Your task to perform on an android device: turn off javascript in the chrome app Image 0: 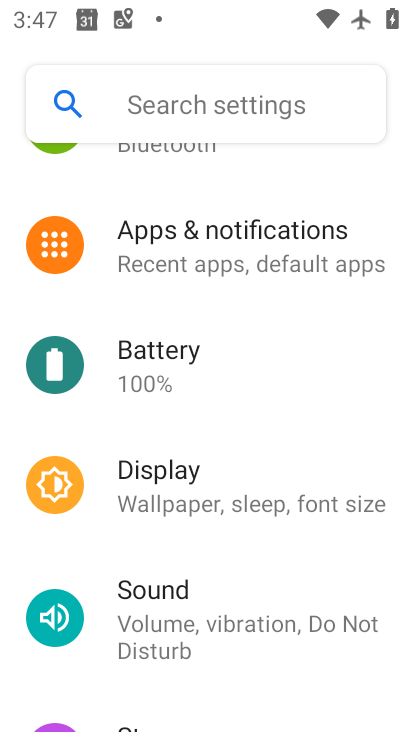
Step 0: press home button
Your task to perform on an android device: turn off javascript in the chrome app Image 1: 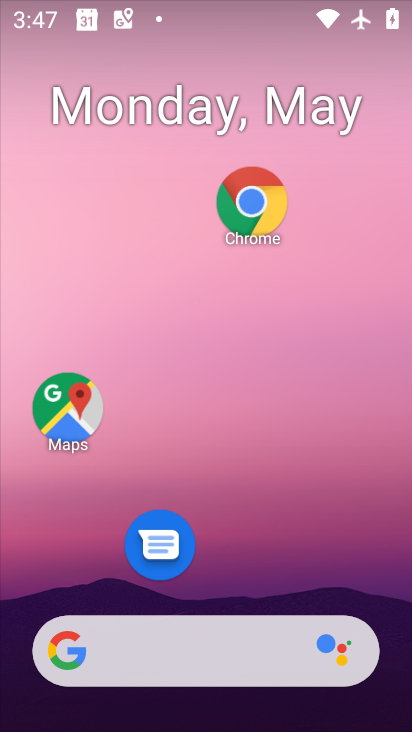
Step 1: click (261, 221)
Your task to perform on an android device: turn off javascript in the chrome app Image 2: 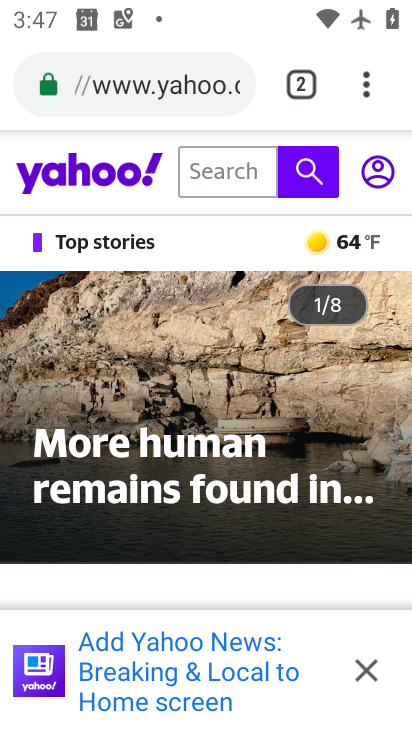
Step 2: drag from (360, 85) to (96, 591)
Your task to perform on an android device: turn off javascript in the chrome app Image 3: 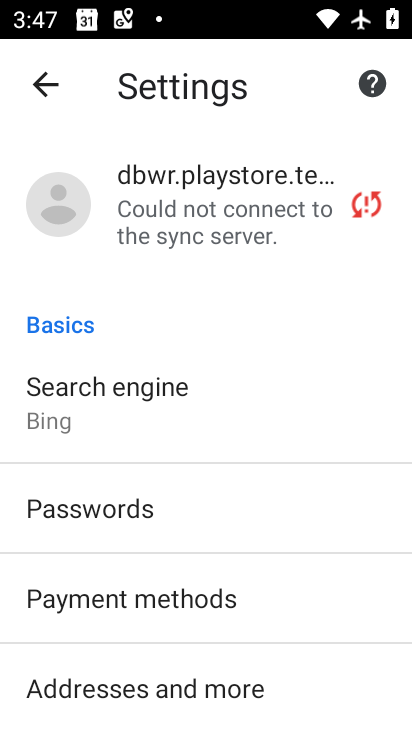
Step 3: drag from (161, 632) to (187, 331)
Your task to perform on an android device: turn off javascript in the chrome app Image 4: 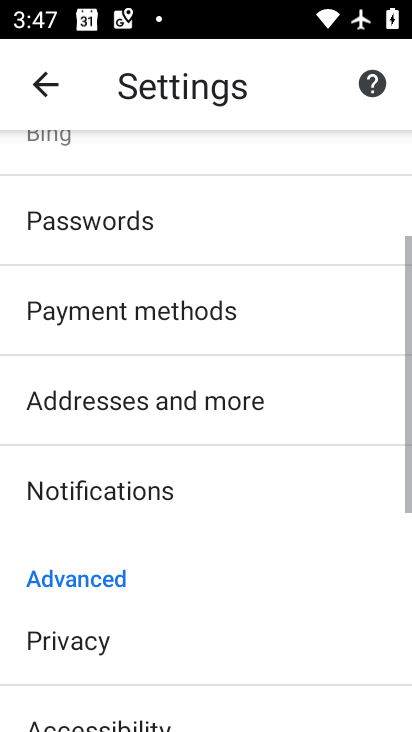
Step 4: drag from (222, 714) to (206, 435)
Your task to perform on an android device: turn off javascript in the chrome app Image 5: 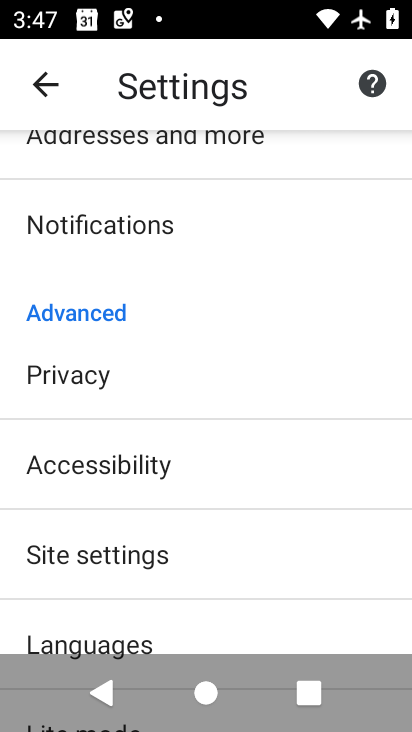
Step 5: drag from (158, 549) to (168, 390)
Your task to perform on an android device: turn off javascript in the chrome app Image 6: 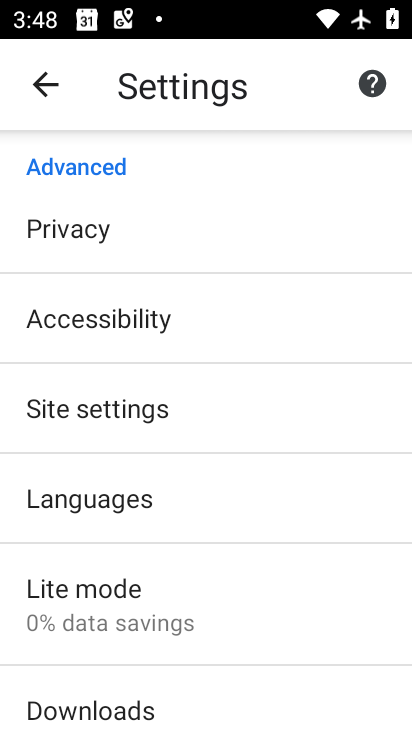
Step 6: click (105, 405)
Your task to perform on an android device: turn off javascript in the chrome app Image 7: 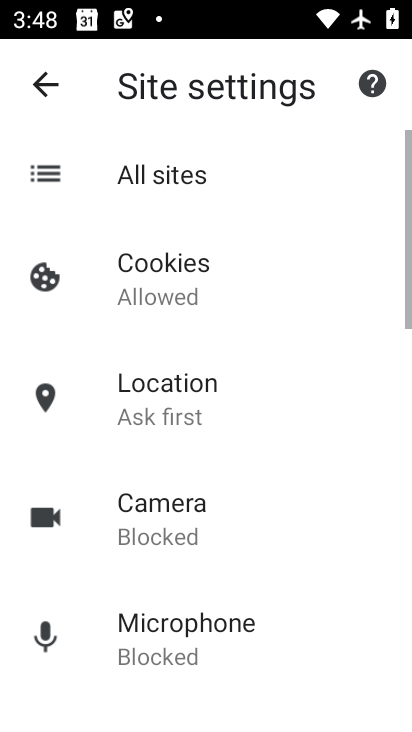
Step 7: drag from (215, 704) to (253, 359)
Your task to perform on an android device: turn off javascript in the chrome app Image 8: 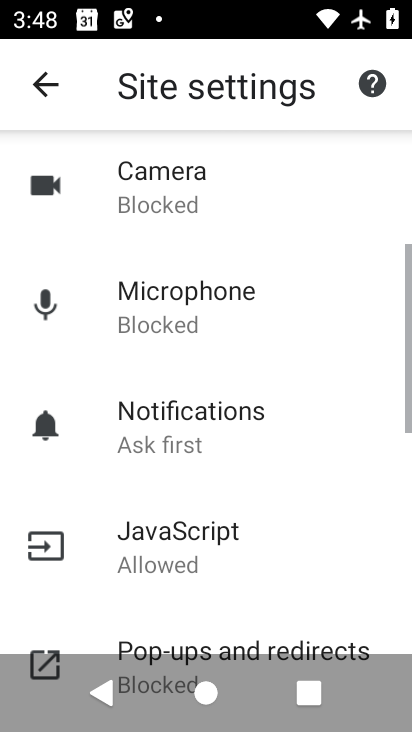
Step 8: click (190, 560)
Your task to perform on an android device: turn off javascript in the chrome app Image 9: 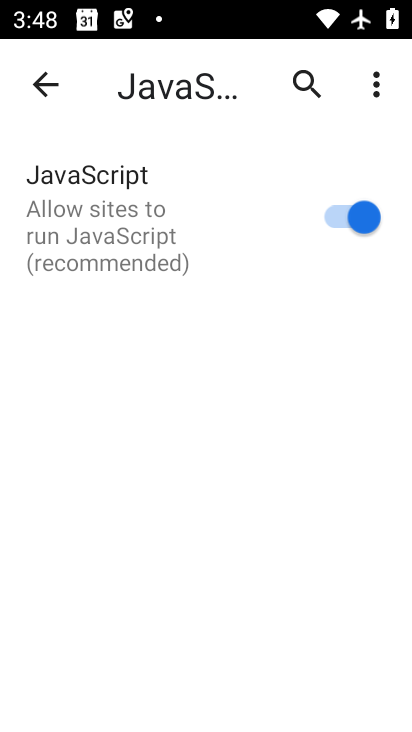
Step 9: click (325, 228)
Your task to perform on an android device: turn off javascript in the chrome app Image 10: 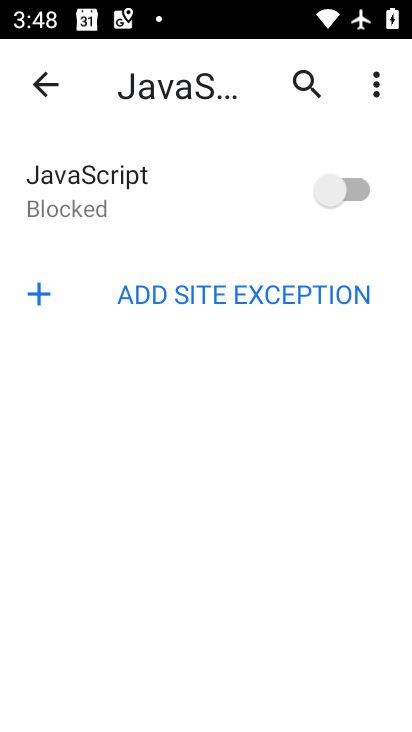
Step 10: task complete